Your task to perform on an android device: Do I have any events tomorrow? Image 0: 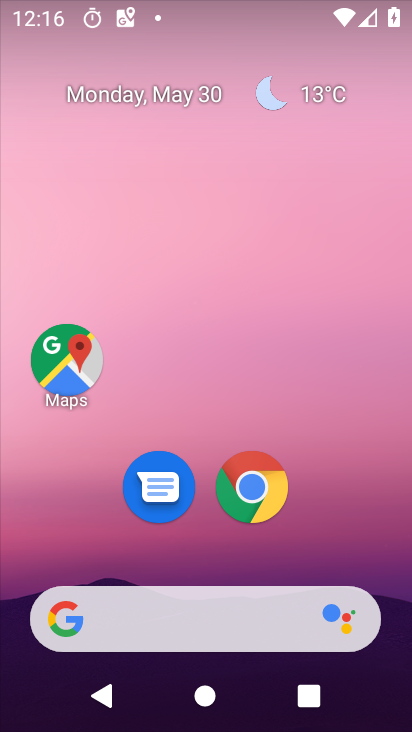
Step 0: drag from (382, 687) to (369, 169)
Your task to perform on an android device: Do I have any events tomorrow? Image 1: 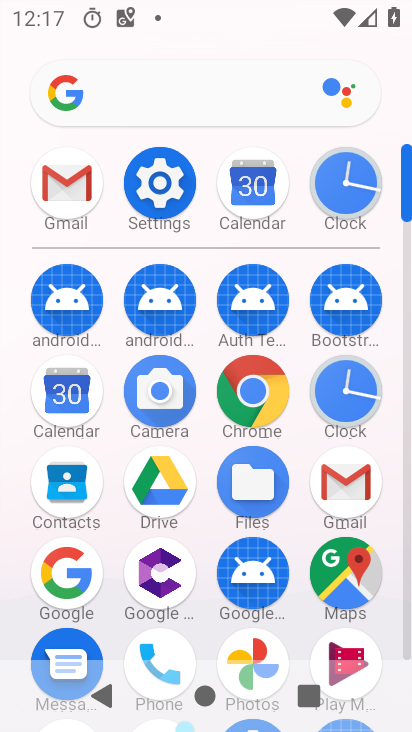
Step 1: click (63, 405)
Your task to perform on an android device: Do I have any events tomorrow? Image 2: 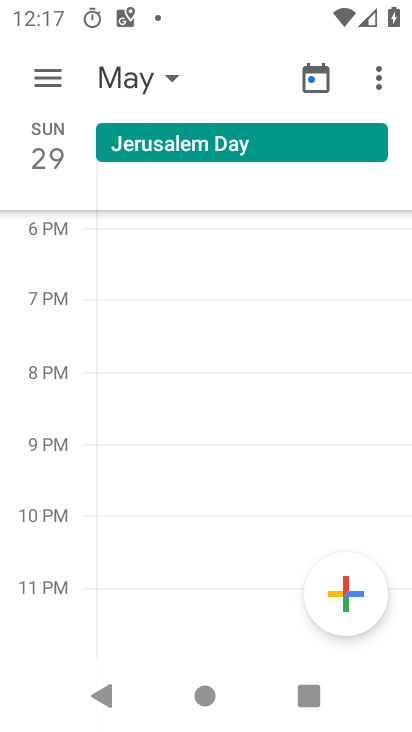
Step 2: click (163, 74)
Your task to perform on an android device: Do I have any events tomorrow? Image 3: 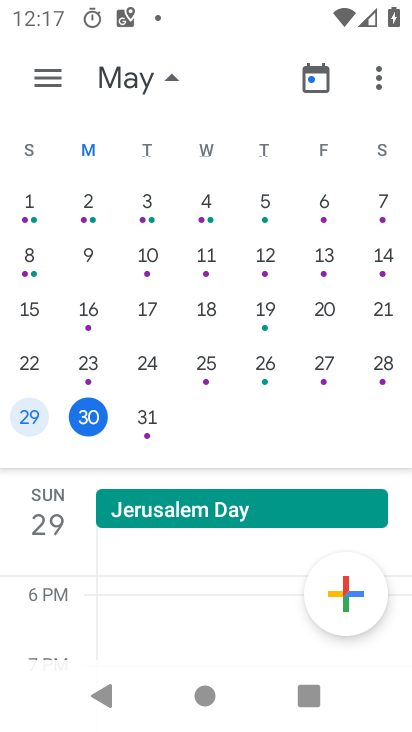
Step 3: click (146, 412)
Your task to perform on an android device: Do I have any events tomorrow? Image 4: 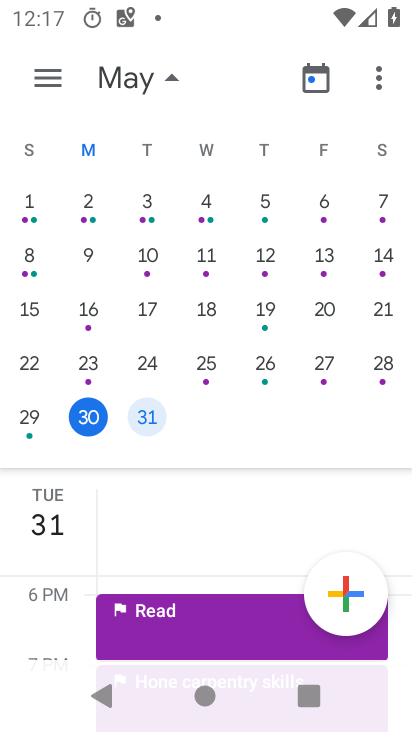
Step 4: task complete